Your task to perform on an android device: Turn off the flashlight Image 0: 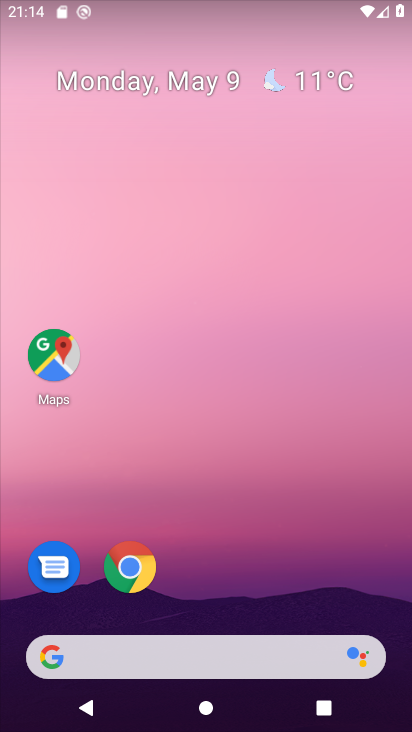
Step 0: drag from (268, 6) to (227, 515)
Your task to perform on an android device: Turn off the flashlight Image 1: 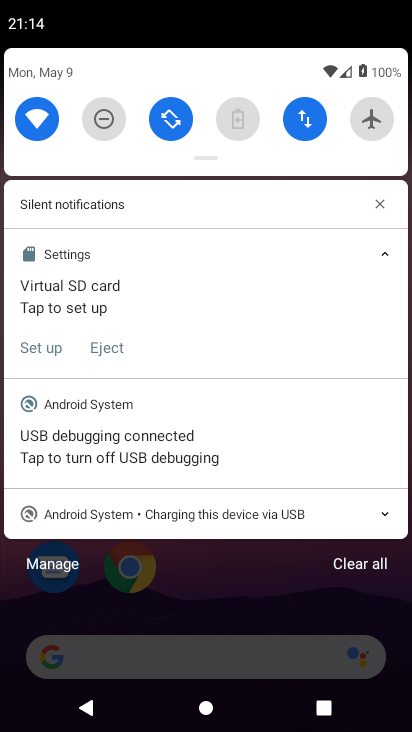
Step 1: task complete